Your task to perform on an android device: read, delete, or share a saved page in the chrome app Image 0: 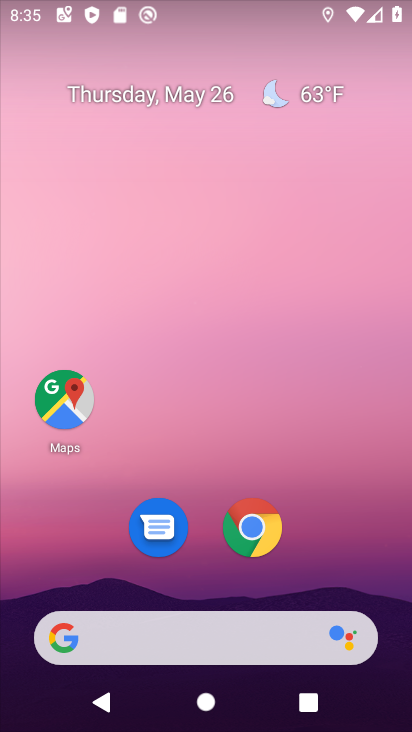
Step 0: drag from (337, 487) to (338, 88)
Your task to perform on an android device: read, delete, or share a saved page in the chrome app Image 1: 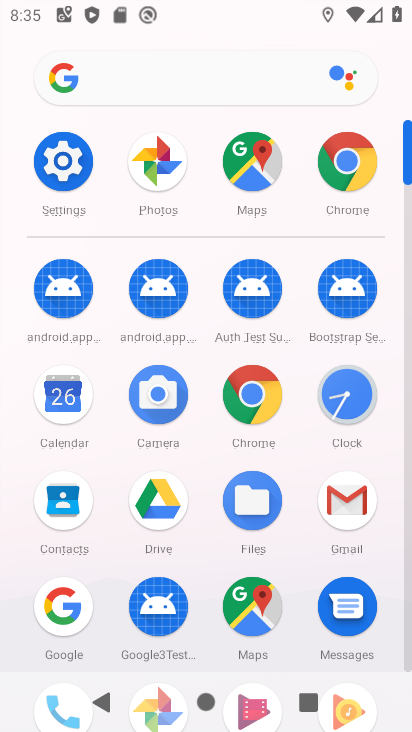
Step 1: click (353, 171)
Your task to perform on an android device: read, delete, or share a saved page in the chrome app Image 2: 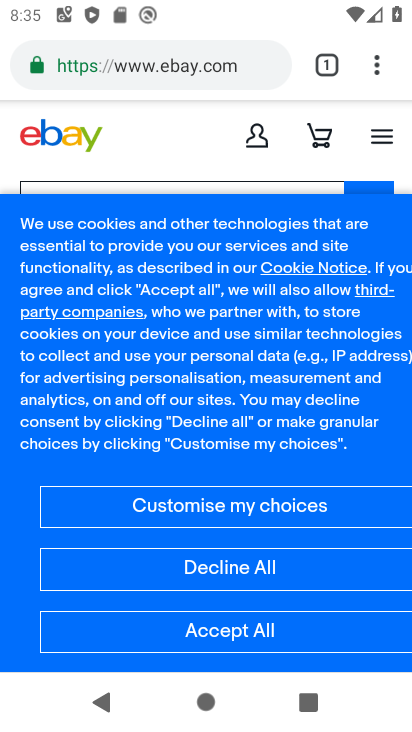
Step 2: task complete